Your task to perform on an android device: What's the weather going to be this weekend? Image 0: 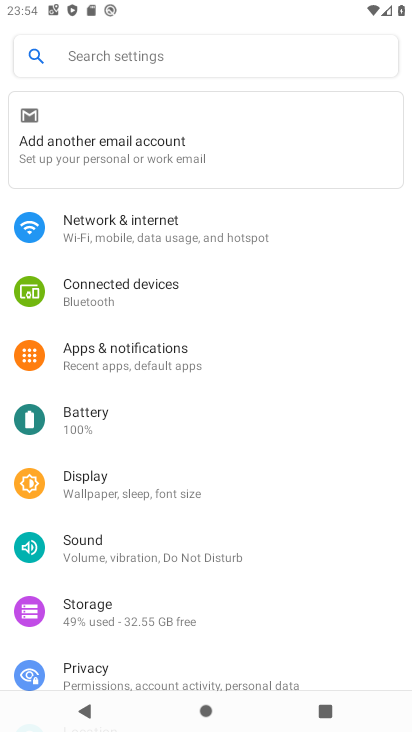
Step 0: press home button
Your task to perform on an android device: What's the weather going to be this weekend? Image 1: 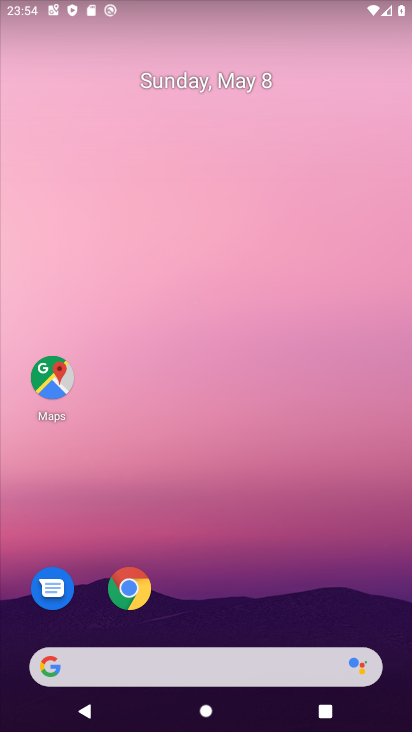
Step 1: drag from (232, 477) to (121, 2)
Your task to perform on an android device: What's the weather going to be this weekend? Image 2: 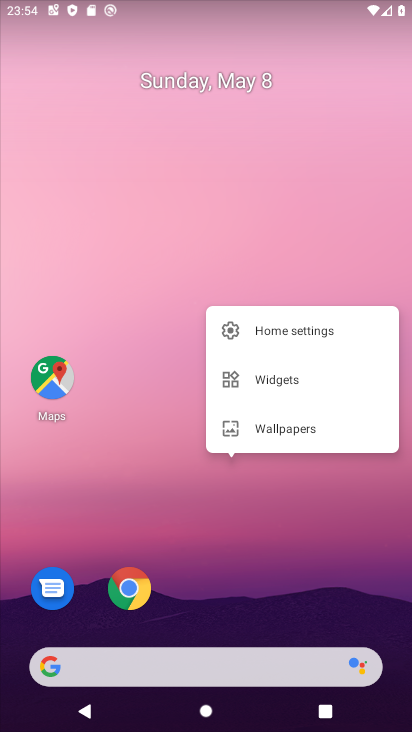
Step 2: click (150, 548)
Your task to perform on an android device: What's the weather going to be this weekend? Image 3: 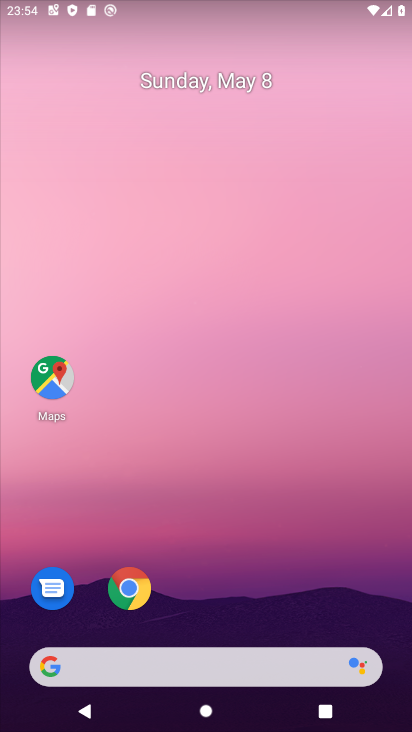
Step 3: click (179, 663)
Your task to perform on an android device: What's the weather going to be this weekend? Image 4: 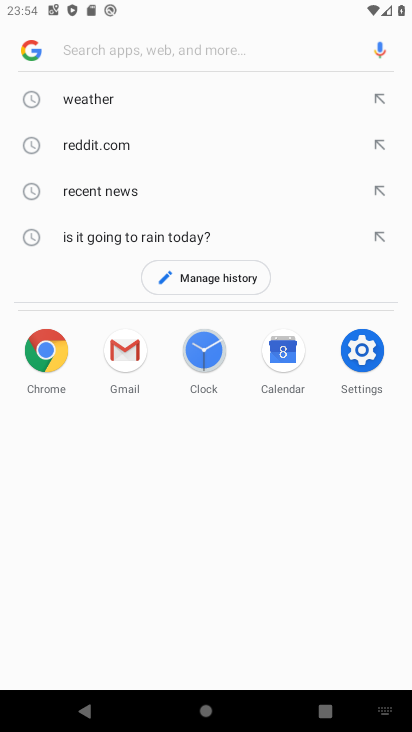
Step 4: click (96, 96)
Your task to perform on an android device: What's the weather going to be this weekend? Image 5: 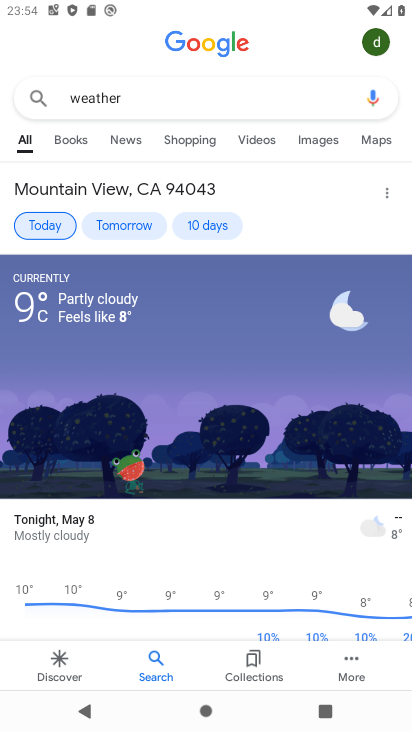
Step 5: click (196, 230)
Your task to perform on an android device: What's the weather going to be this weekend? Image 6: 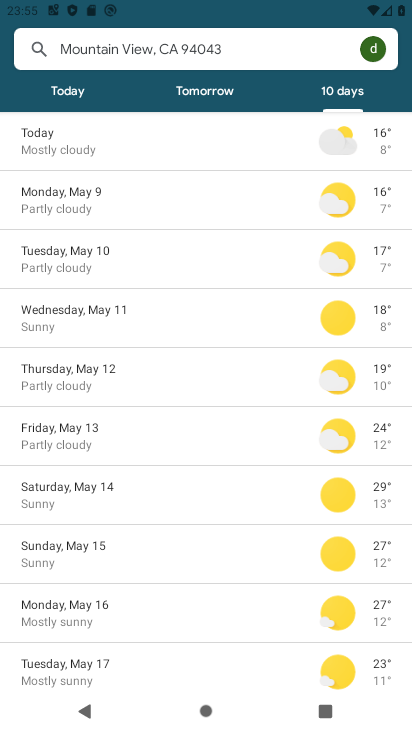
Step 6: task complete